Your task to perform on an android device: Open Amazon Image 0: 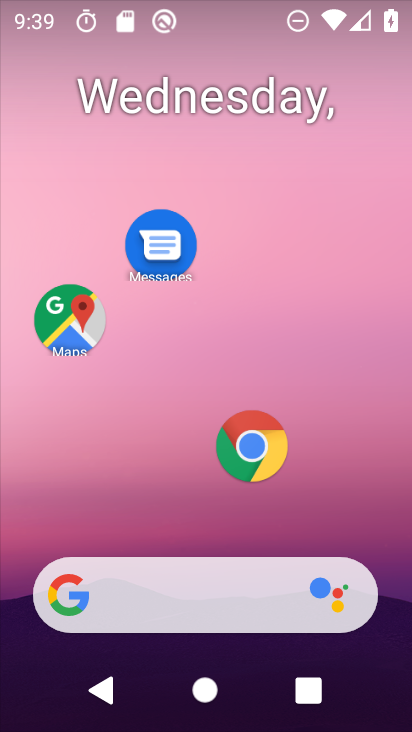
Step 0: click (246, 430)
Your task to perform on an android device: Open Amazon Image 1: 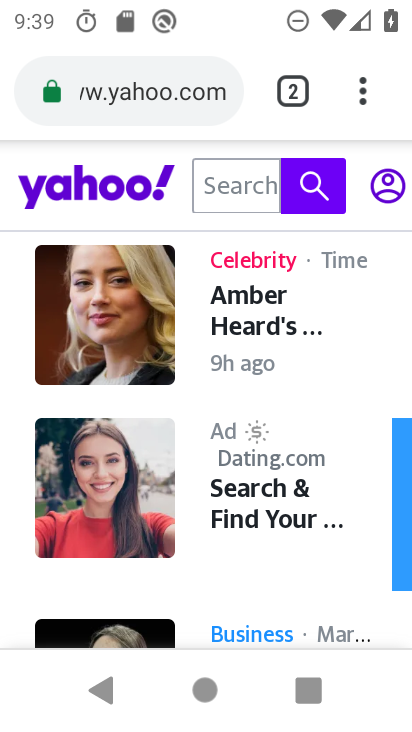
Step 1: click (290, 91)
Your task to perform on an android device: Open Amazon Image 2: 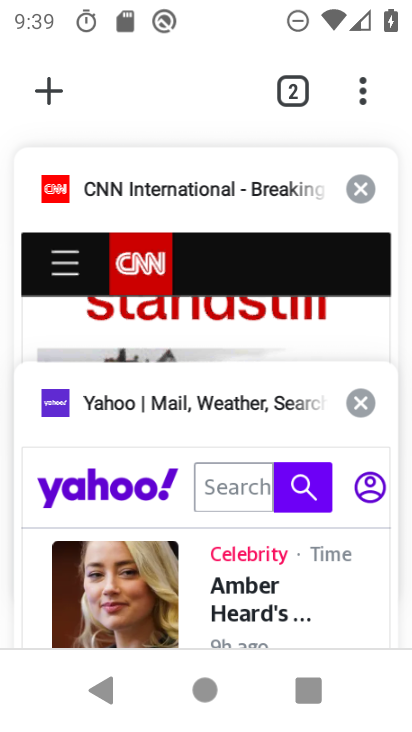
Step 2: click (56, 90)
Your task to perform on an android device: Open Amazon Image 3: 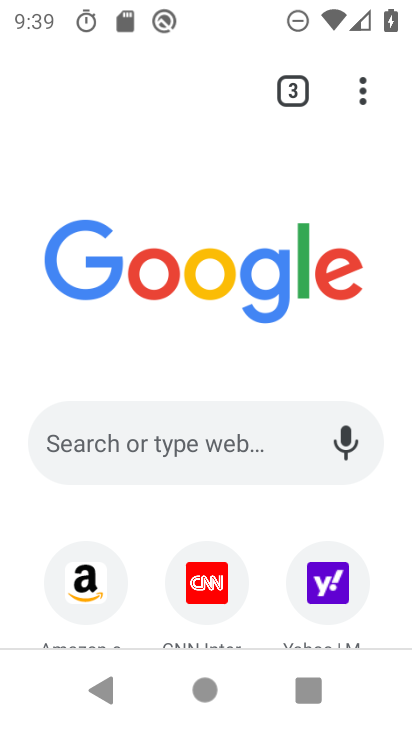
Step 3: click (92, 574)
Your task to perform on an android device: Open Amazon Image 4: 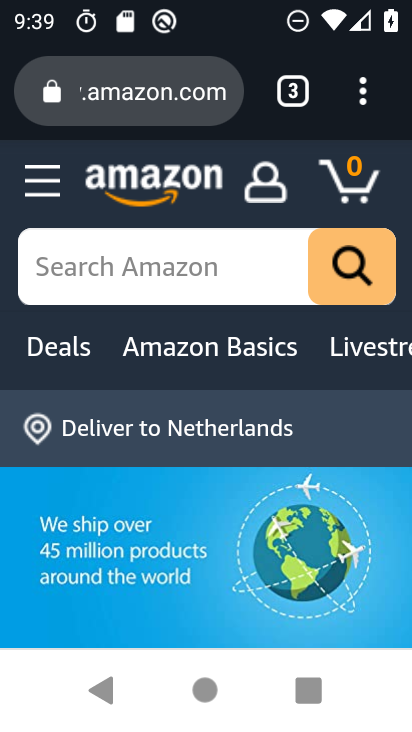
Step 4: task complete